Your task to perform on an android device: turn notification dots off Image 0: 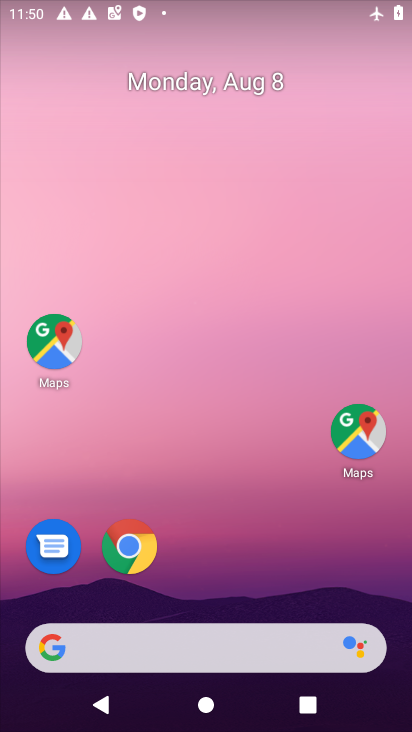
Step 0: drag from (164, 189) to (216, 166)
Your task to perform on an android device: turn notification dots off Image 1: 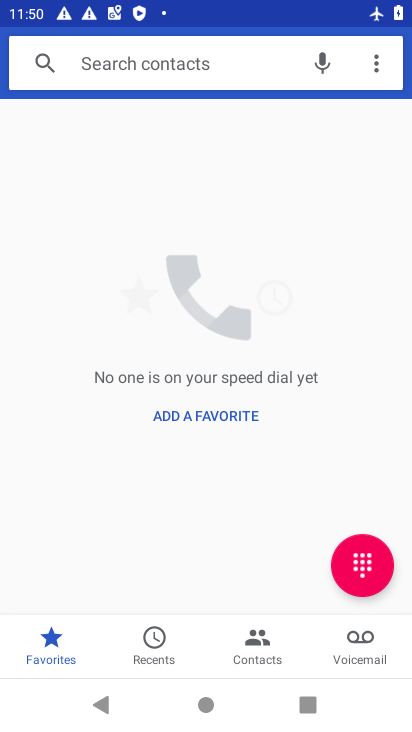
Step 1: press back button
Your task to perform on an android device: turn notification dots off Image 2: 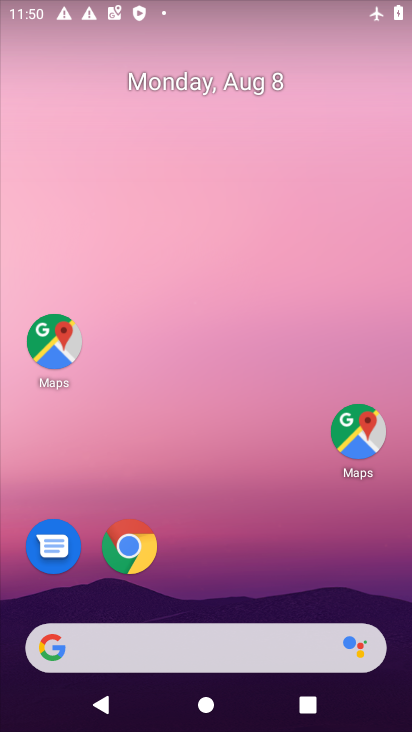
Step 2: drag from (251, 481) to (243, 144)
Your task to perform on an android device: turn notification dots off Image 3: 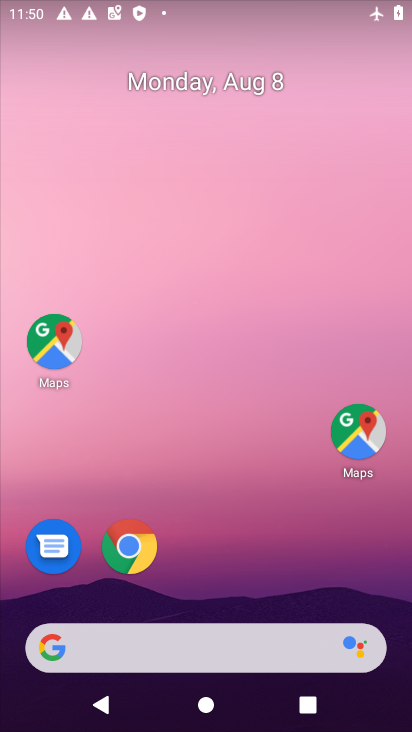
Step 3: drag from (271, 581) to (252, 45)
Your task to perform on an android device: turn notification dots off Image 4: 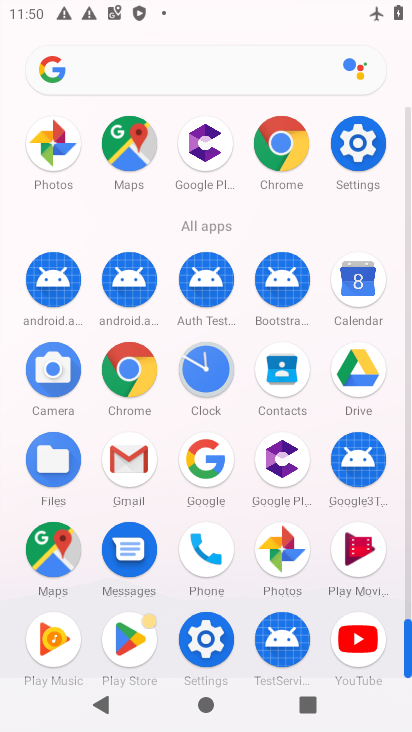
Step 4: drag from (262, 330) to (265, 69)
Your task to perform on an android device: turn notification dots off Image 5: 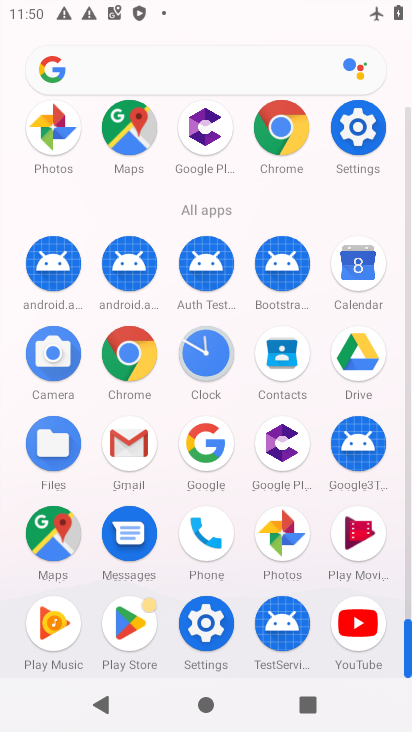
Step 5: click (357, 148)
Your task to perform on an android device: turn notification dots off Image 6: 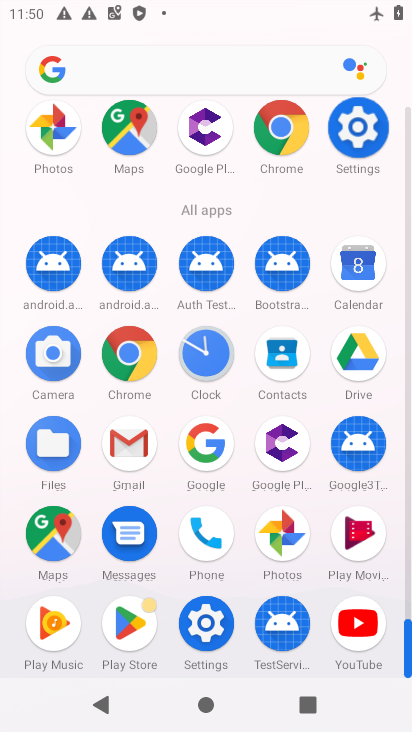
Step 6: click (357, 148)
Your task to perform on an android device: turn notification dots off Image 7: 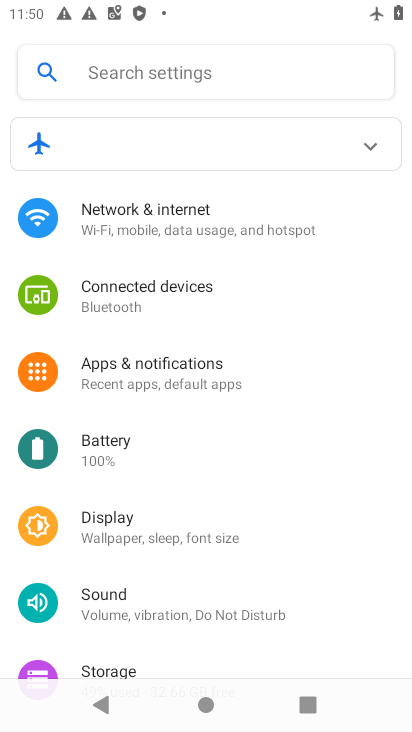
Step 7: click (136, 373)
Your task to perform on an android device: turn notification dots off Image 8: 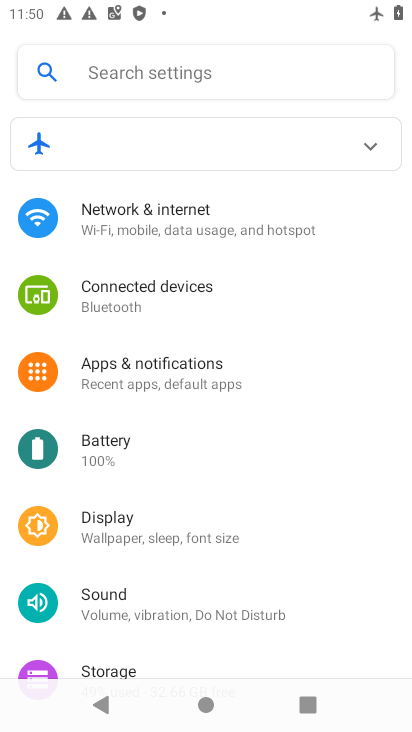
Step 8: click (166, 390)
Your task to perform on an android device: turn notification dots off Image 9: 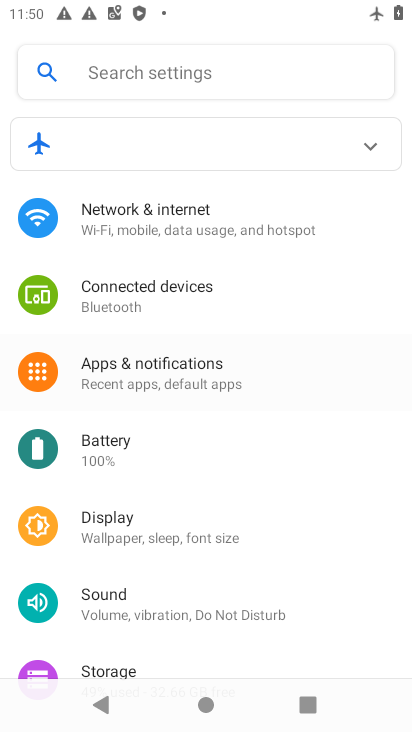
Step 9: click (166, 390)
Your task to perform on an android device: turn notification dots off Image 10: 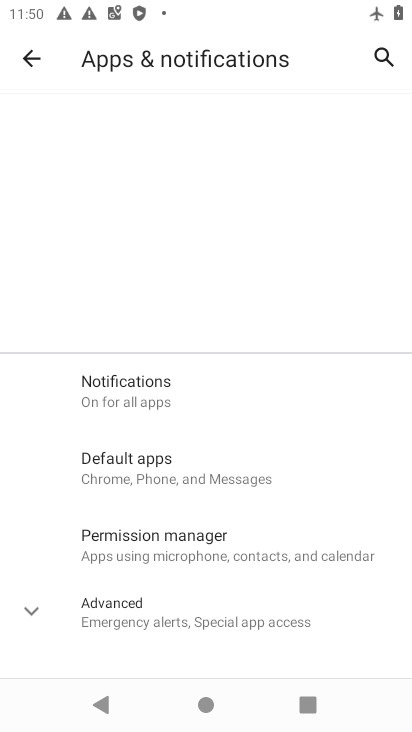
Step 10: drag from (200, 561) to (142, 279)
Your task to perform on an android device: turn notification dots off Image 11: 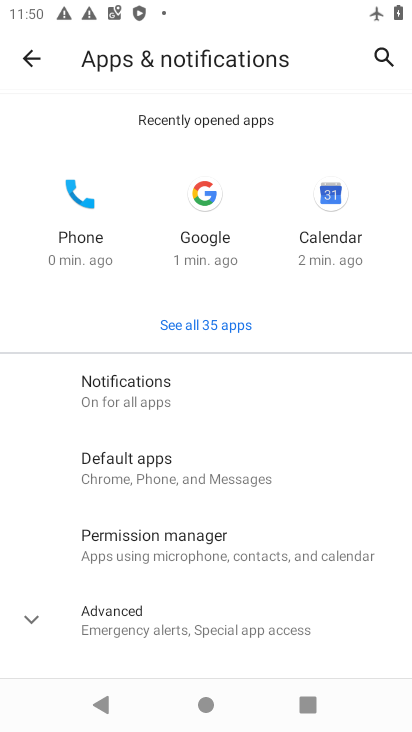
Step 11: click (110, 390)
Your task to perform on an android device: turn notification dots off Image 12: 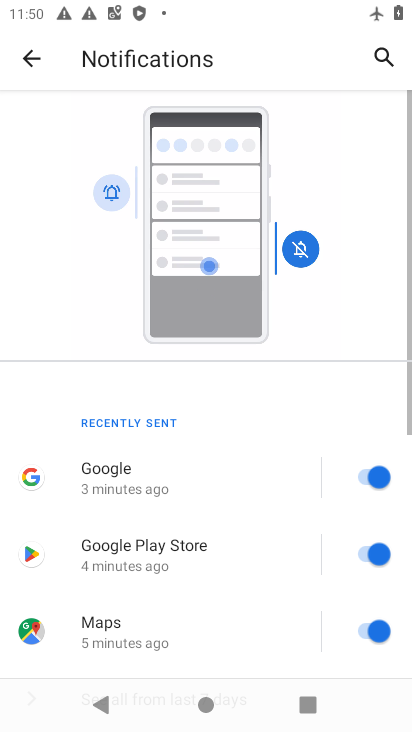
Step 12: drag from (213, 479) to (191, 214)
Your task to perform on an android device: turn notification dots off Image 13: 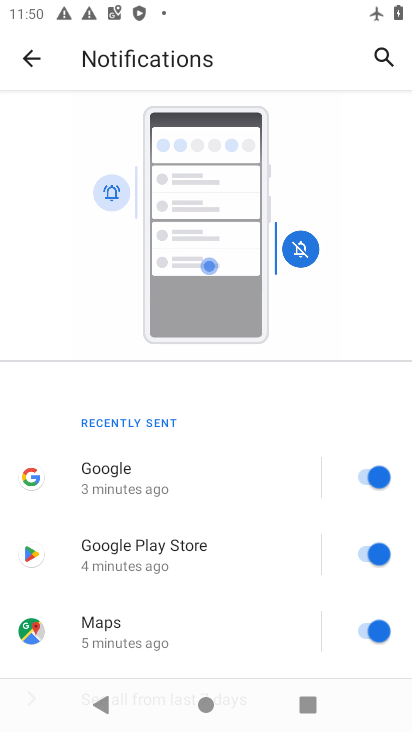
Step 13: click (140, 279)
Your task to perform on an android device: turn notification dots off Image 14: 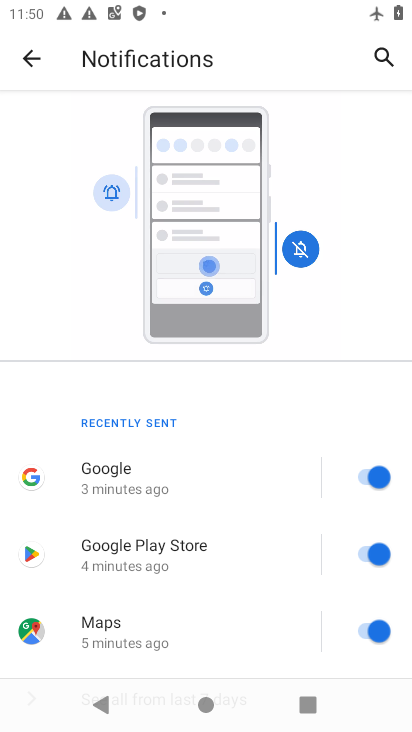
Step 14: drag from (149, 341) to (146, 222)
Your task to perform on an android device: turn notification dots off Image 15: 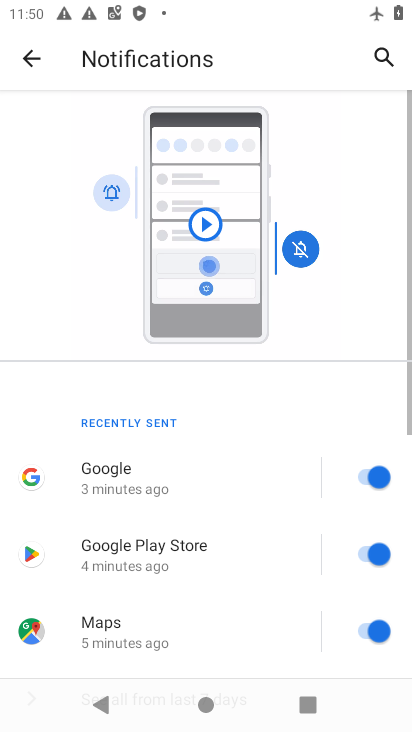
Step 15: drag from (141, 558) to (141, 315)
Your task to perform on an android device: turn notification dots off Image 16: 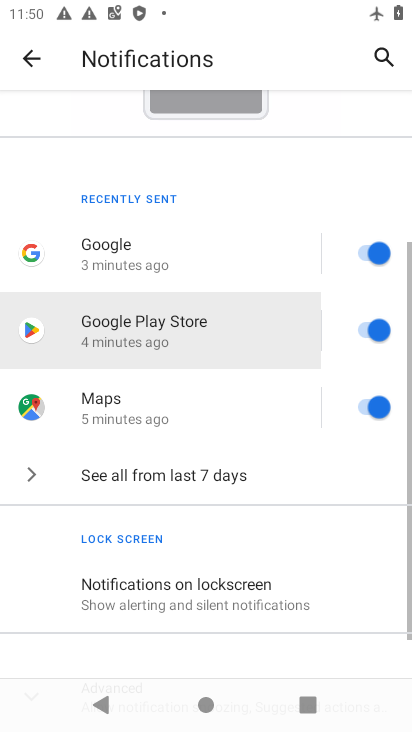
Step 16: drag from (172, 427) to (125, 292)
Your task to perform on an android device: turn notification dots off Image 17: 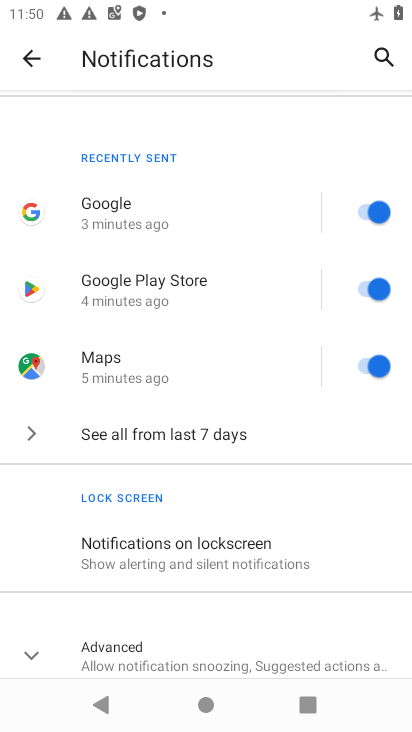
Step 17: click (132, 658)
Your task to perform on an android device: turn notification dots off Image 18: 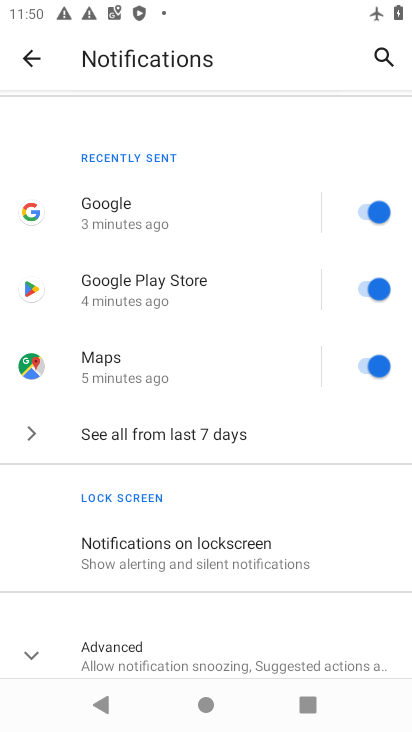
Step 18: click (132, 658)
Your task to perform on an android device: turn notification dots off Image 19: 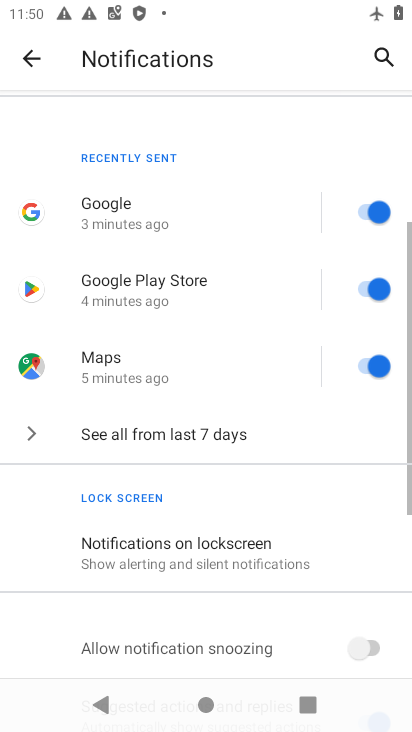
Step 19: click (132, 658)
Your task to perform on an android device: turn notification dots off Image 20: 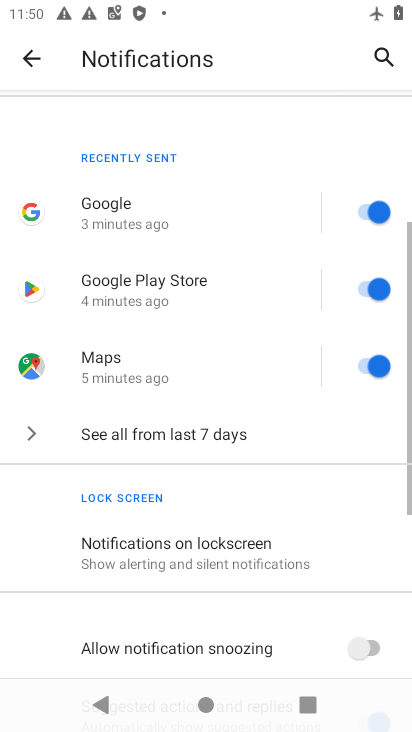
Step 20: click (131, 659)
Your task to perform on an android device: turn notification dots off Image 21: 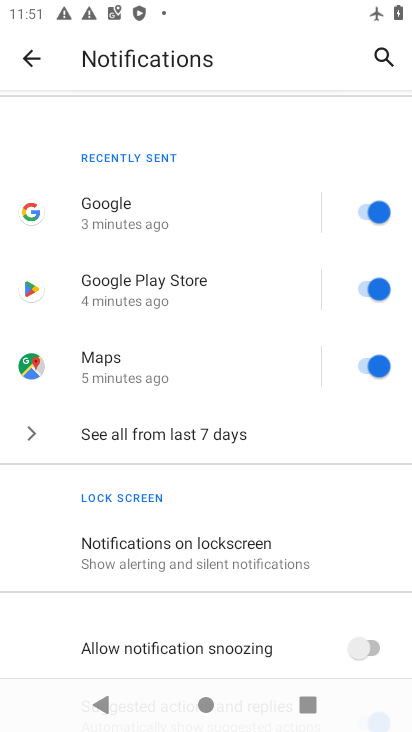
Step 21: drag from (173, 587) to (119, 328)
Your task to perform on an android device: turn notification dots off Image 22: 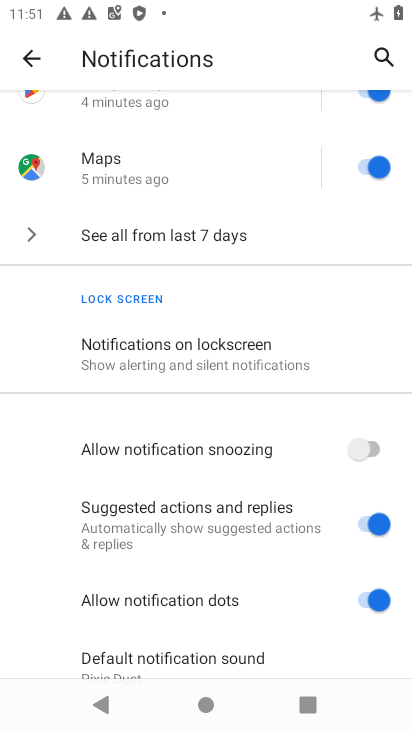
Step 22: click (145, 384)
Your task to perform on an android device: turn notification dots off Image 23: 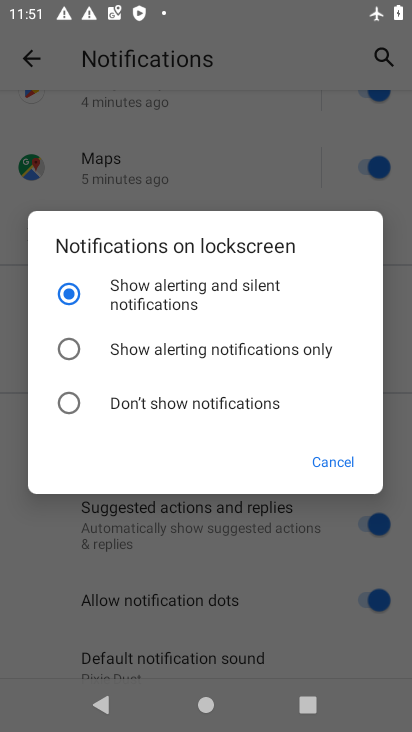
Step 23: click (371, 596)
Your task to perform on an android device: turn notification dots off Image 24: 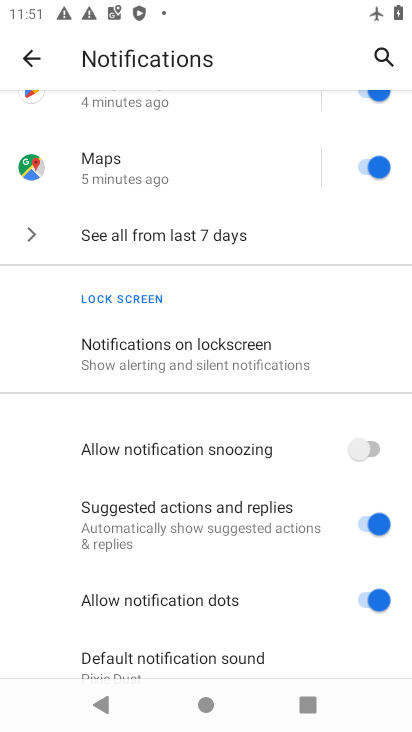
Step 24: click (374, 593)
Your task to perform on an android device: turn notification dots off Image 25: 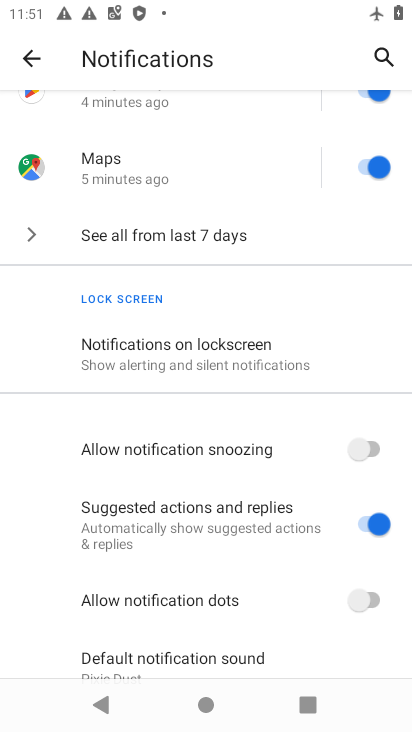
Step 25: task complete